Your task to perform on an android device: Check the weather Image 0: 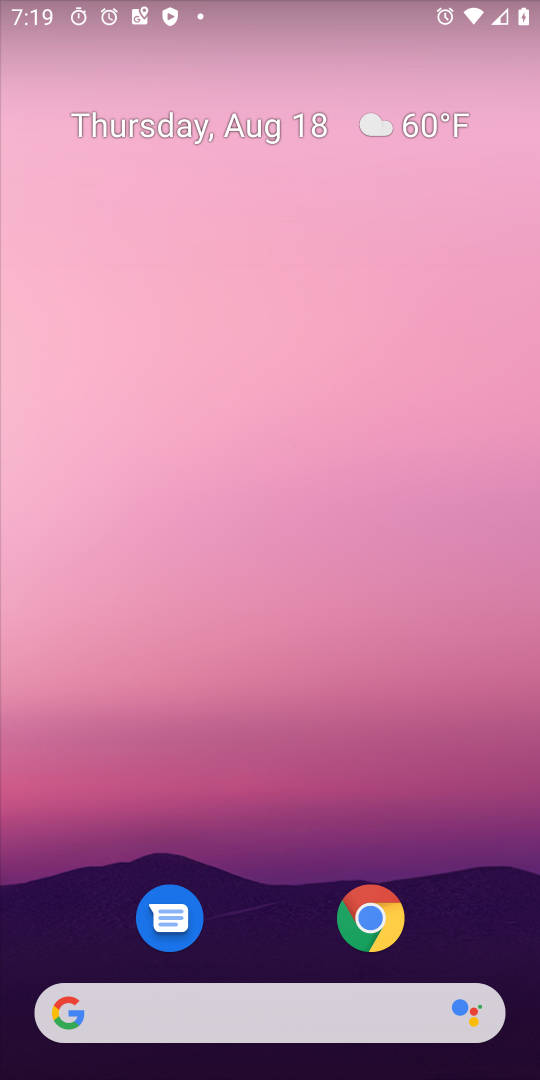
Step 0: press home button
Your task to perform on an android device: Check the weather Image 1: 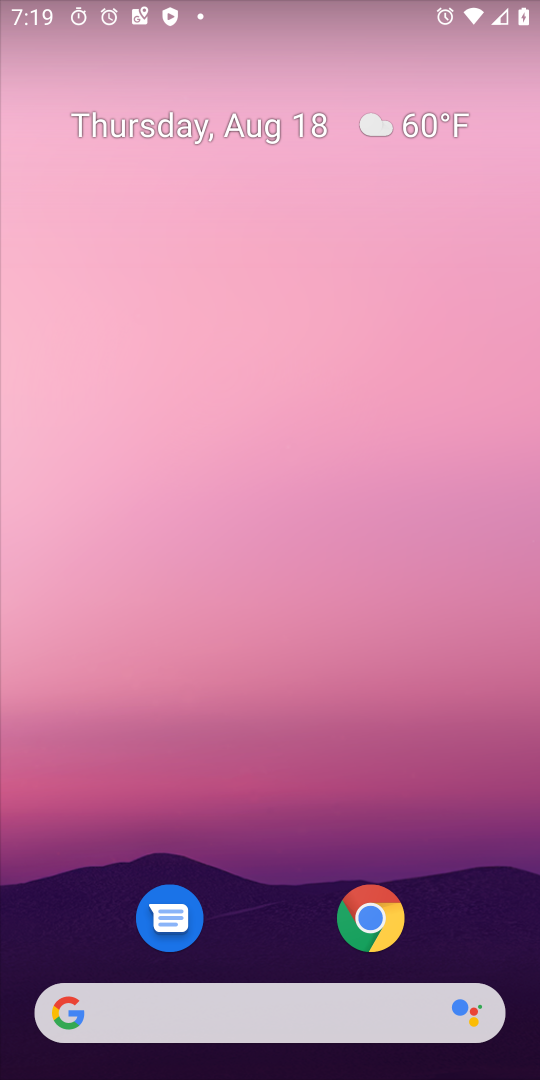
Step 1: click (56, 1014)
Your task to perform on an android device: Check the weather Image 2: 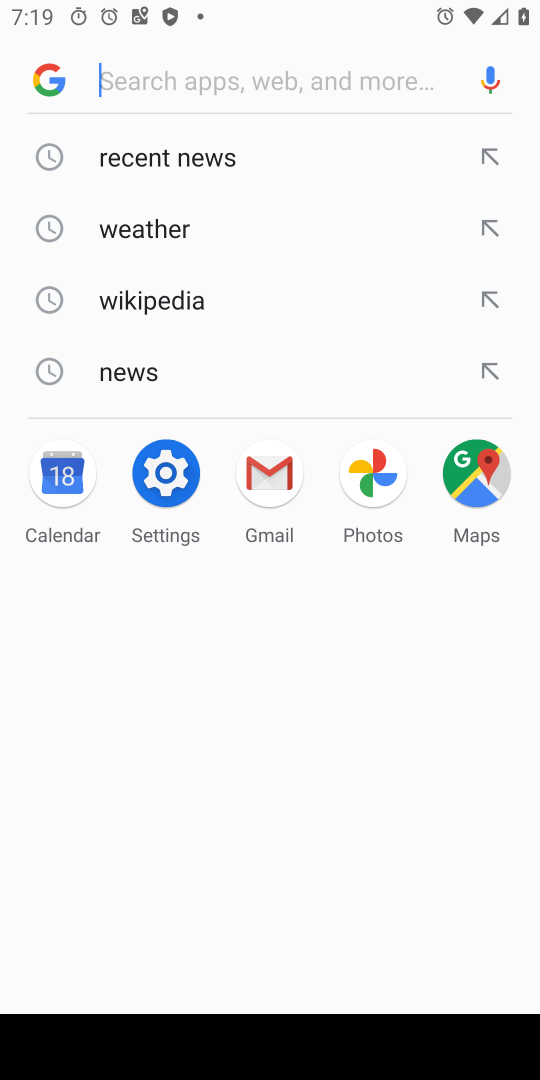
Step 2: click (142, 238)
Your task to perform on an android device: Check the weather Image 3: 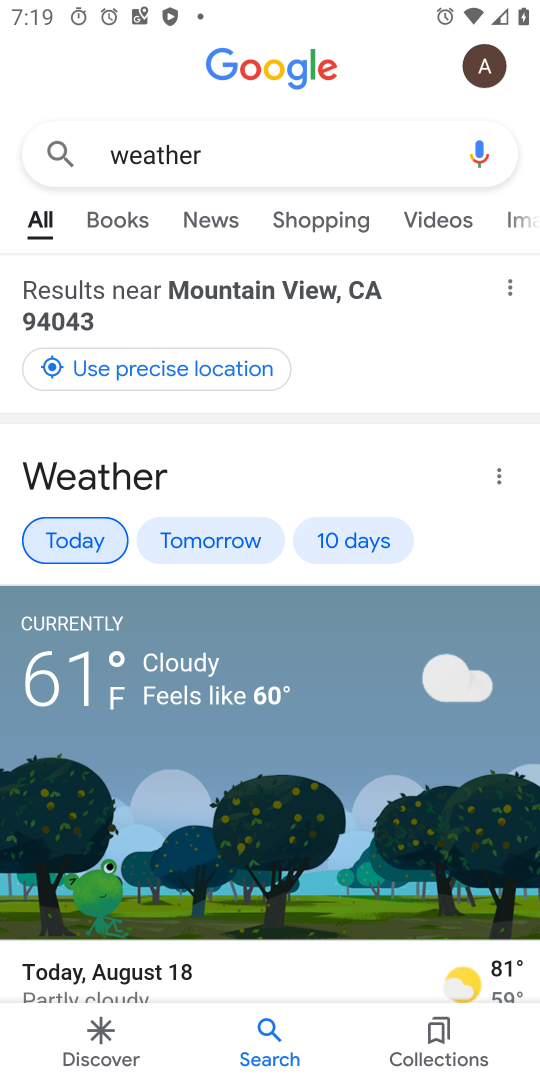
Step 3: task complete